Your task to perform on an android device: Open Google Chrome and click the shortcut for Amazon.com Image 0: 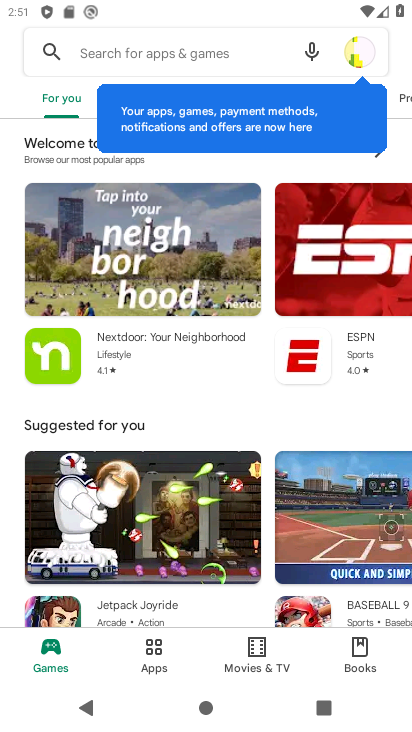
Step 0: press home button
Your task to perform on an android device: Open Google Chrome and click the shortcut for Amazon.com Image 1: 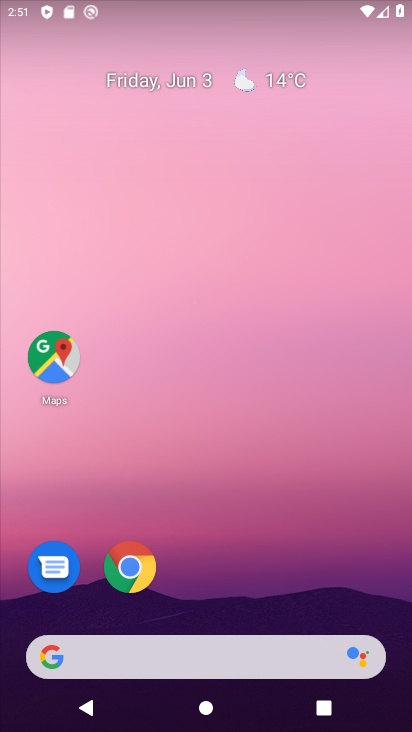
Step 1: click (133, 573)
Your task to perform on an android device: Open Google Chrome and click the shortcut for Amazon.com Image 2: 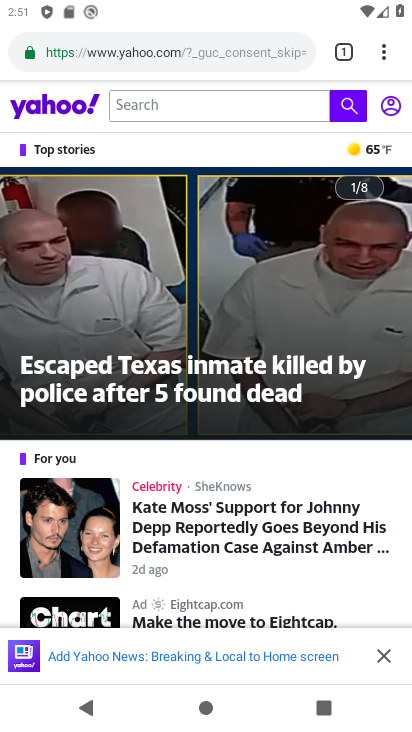
Step 2: click (380, 47)
Your task to perform on an android device: Open Google Chrome and click the shortcut for Amazon.com Image 3: 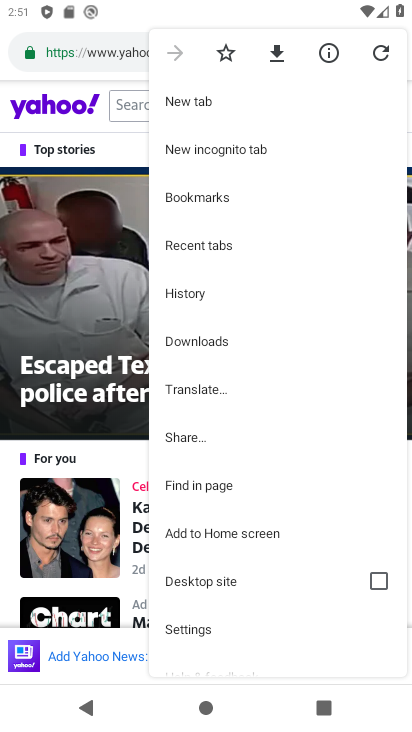
Step 3: click (176, 102)
Your task to perform on an android device: Open Google Chrome and click the shortcut for Amazon.com Image 4: 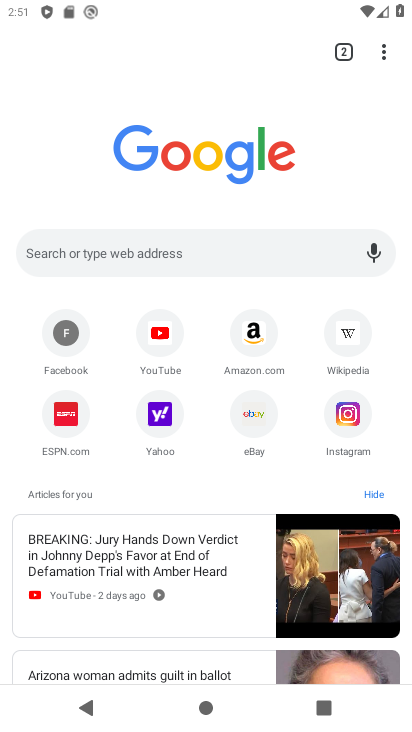
Step 4: click (257, 337)
Your task to perform on an android device: Open Google Chrome and click the shortcut for Amazon.com Image 5: 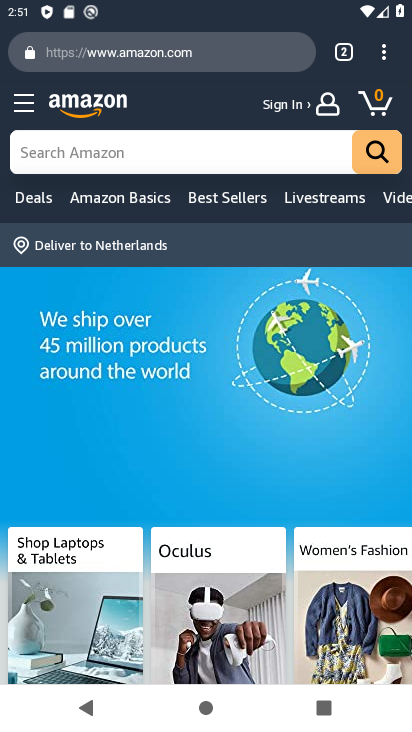
Step 5: task complete